Your task to perform on an android device: turn off sleep mode Image 0: 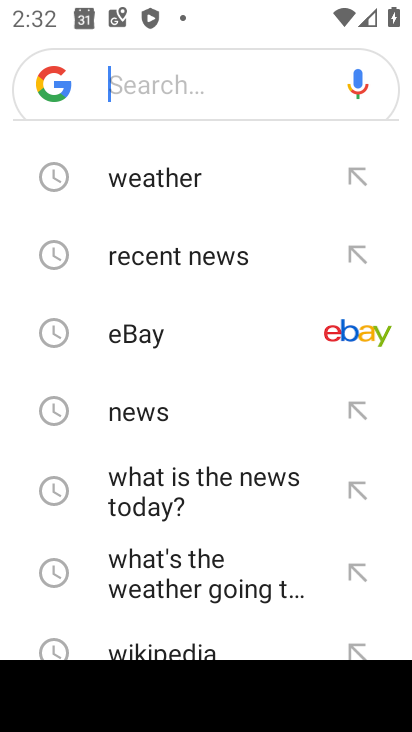
Step 0: press back button
Your task to perform on an android device: turn off sleep mode Image 1: 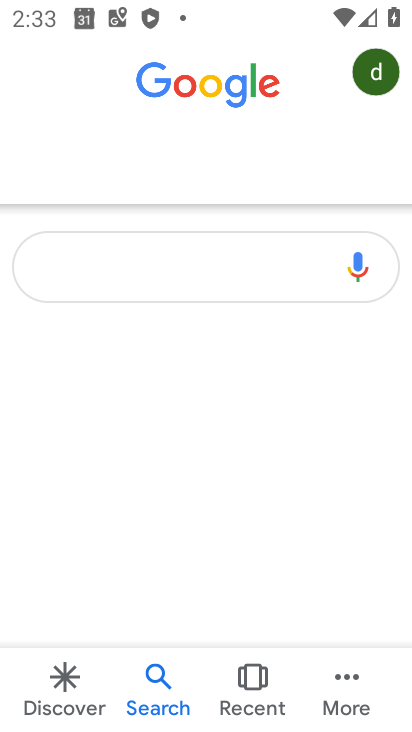
Step 1: press back button
Your task to perform on an android device: turn off sleep mode Image 2: 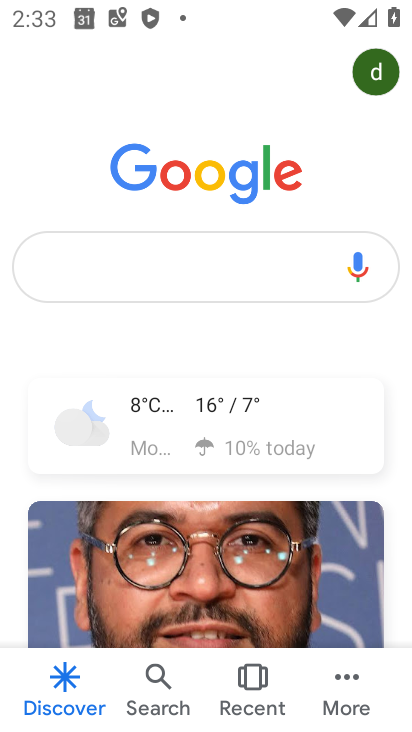
Step 2: press back button
Your task to perform on an android device: turn off sleep mode Image 3: 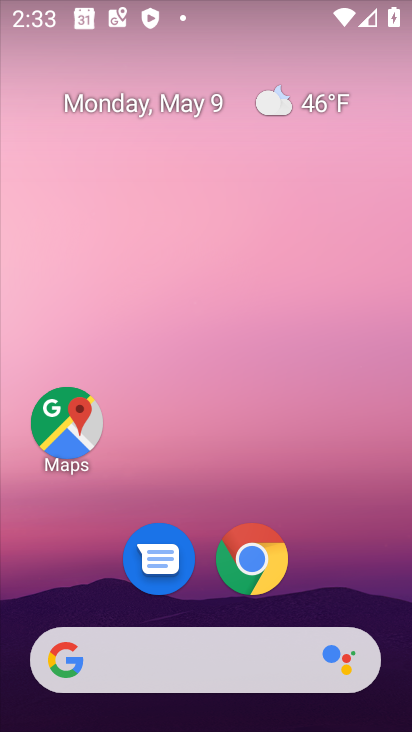
Step 3: drag from (350, 285) to (333, 175)
Your task to perform on an android device: turn off sleep mode Image 4: 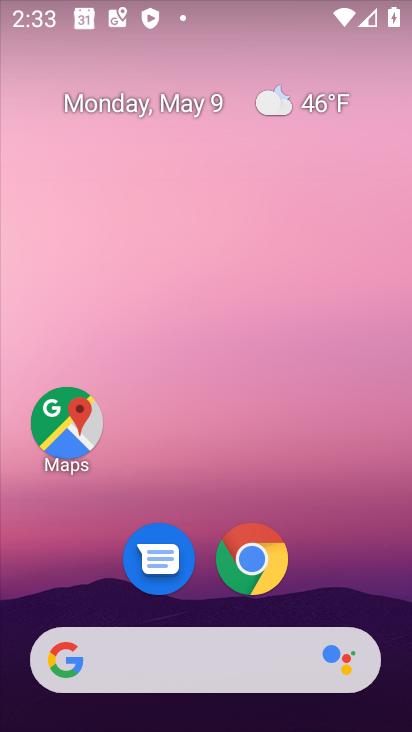
Step 4: drag from (323, 560) to (357, 170)
Your task to perform on an android device: turn off sleep mode Image 5: 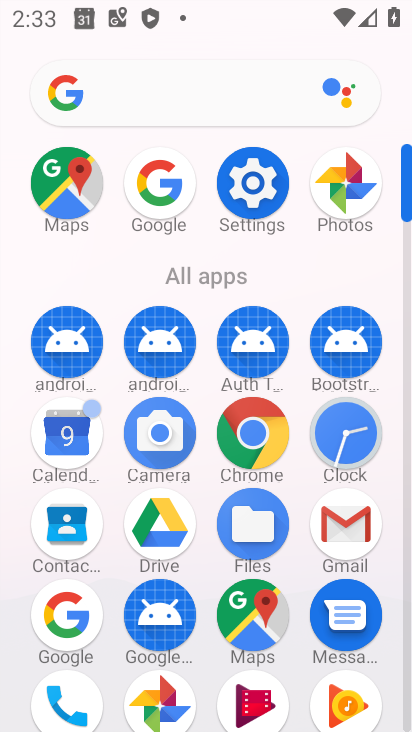
Step 5: click (263, 187)
Your task to perform on an android device: turn off sleep mode Image 6: 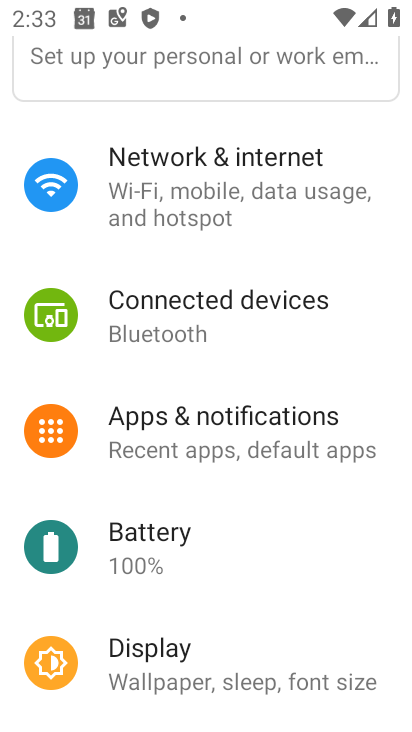
Step 6: click (281, 686)
Your task to perform on an android device: turn off sleep mode Image 7: 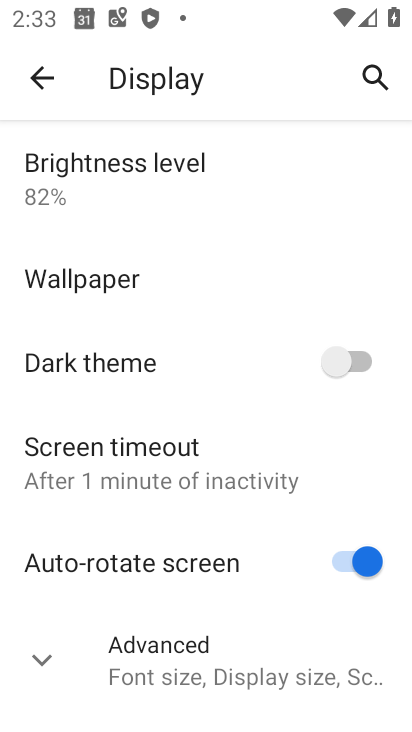
Step 7: click (211, 464)
Your task to perform on an android device: turn off sleep mode Image 8: 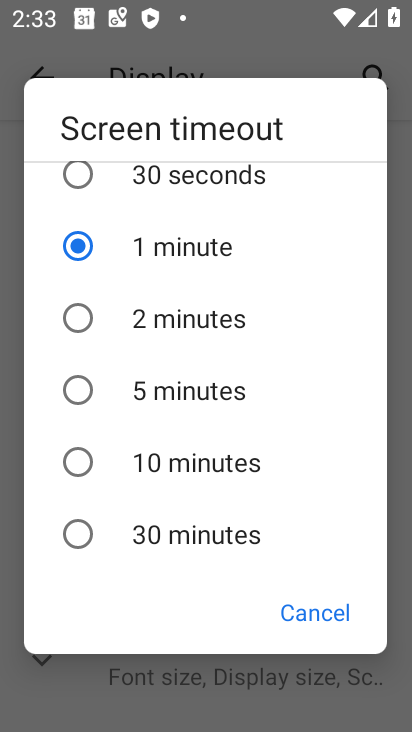
Step 8: task complete